Your task to perform on an android device: turn on showing notifications on the lock screen Image 0: 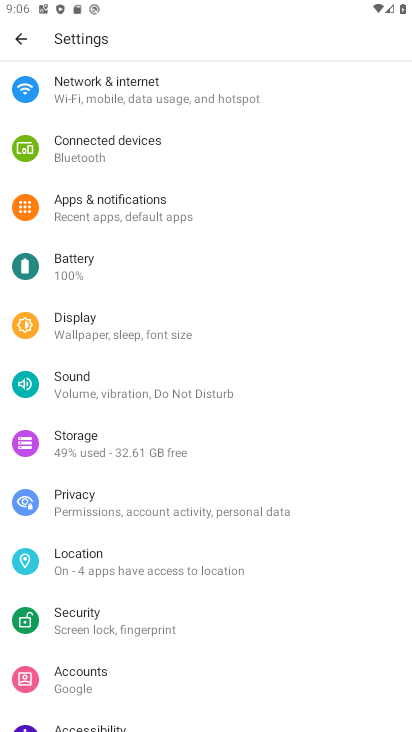
Step 0: drag from (190, 645) to (294, 351)
Your task to perform on an android device: turn on showing notifications on the lock screen Image 1: 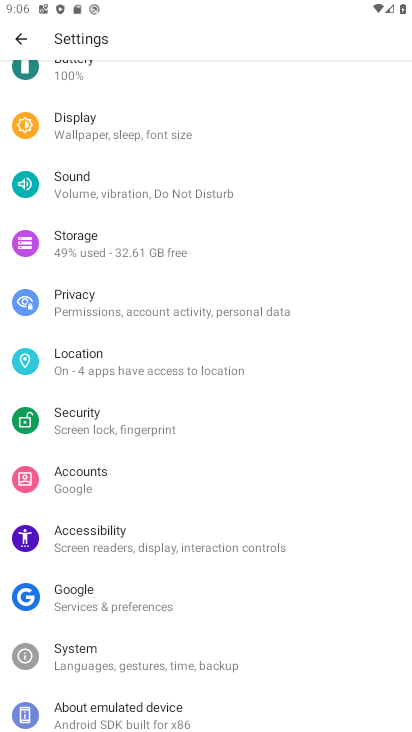
Step 1: drag from (204, 141) to (146, 577)
Your task to perform on an android device: turn on showing notifications on the lock screen Image 2: 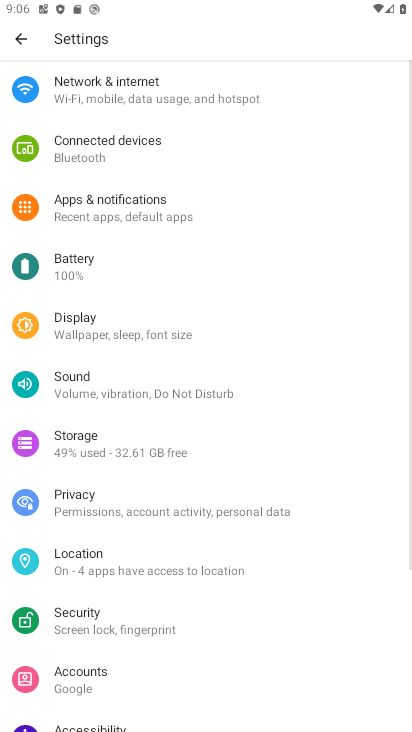
Step 2: click (165, 210)
Your task to perform on an android device: turn on showing notifications on the lock screen Image 3: 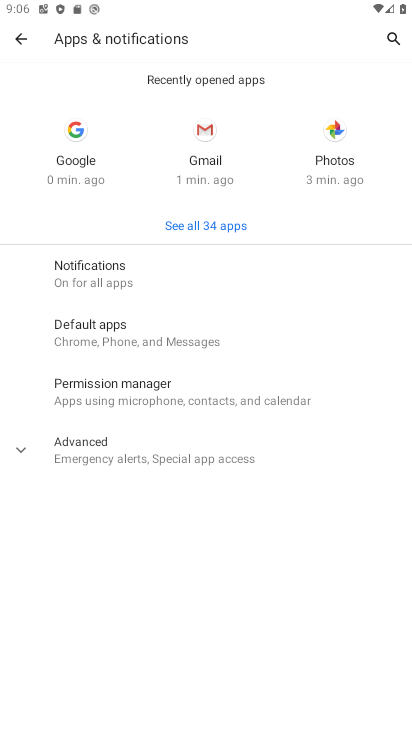
Step 3: click (172, 278)
Your task to perform on an android device: turn on showing notifications on the lock screen Image 4: 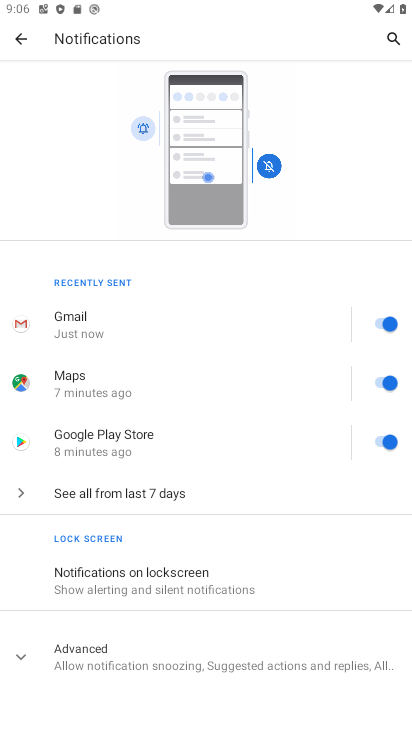
Step 4: click (166, 571)
Your task to perform on an android device: turn on showing notifications on the lock screen Image 5: 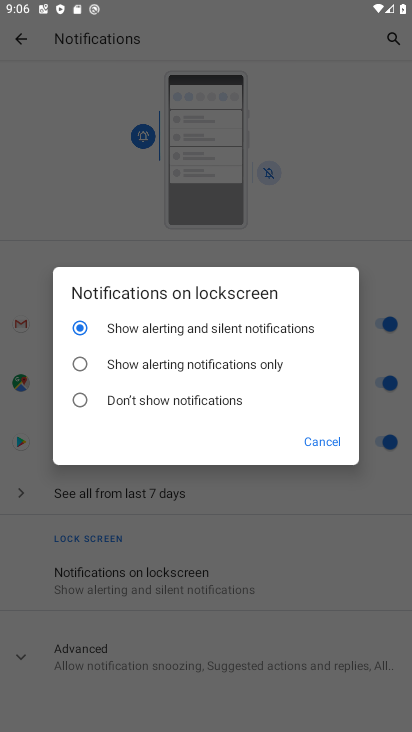
Step 5: task complete